Your task to perform on an android device: empty trash in the gmail app Image 0: 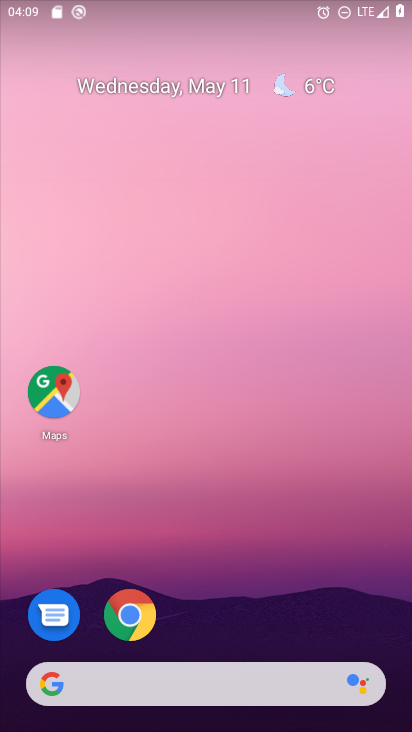
Step 0: drag from (295, 557) to (255, 10)
Your task to perform on an android device: empty trash in the gmail app Image 1: 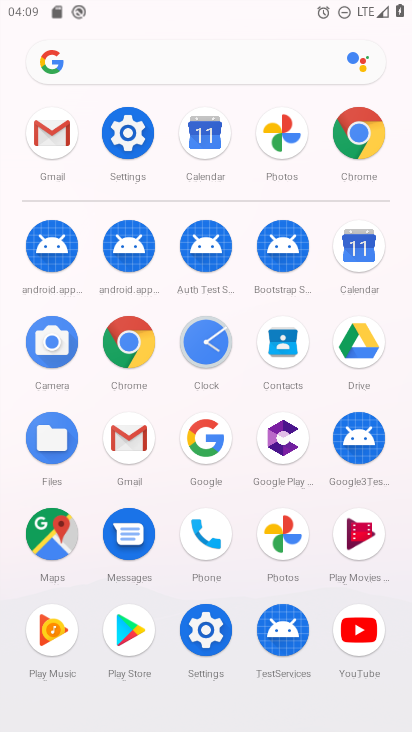
Step 1: click (53, 139)
Your task to perform on an android device: empty trash in the gmail app Image 2: 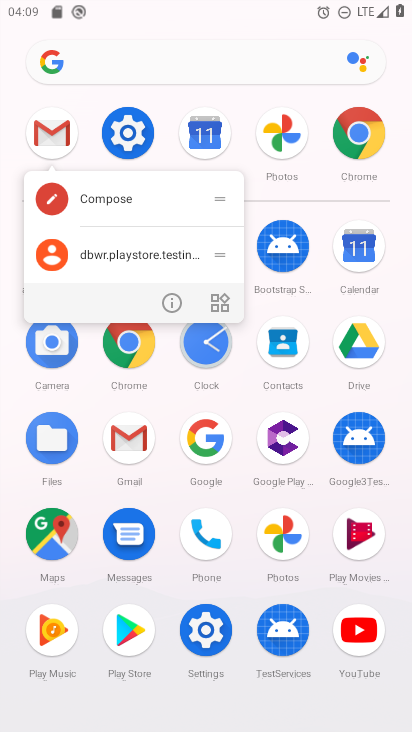
Step 2: click (60, 143)
Your task to perform on an android device: empty trash in the gmail app Image 3: 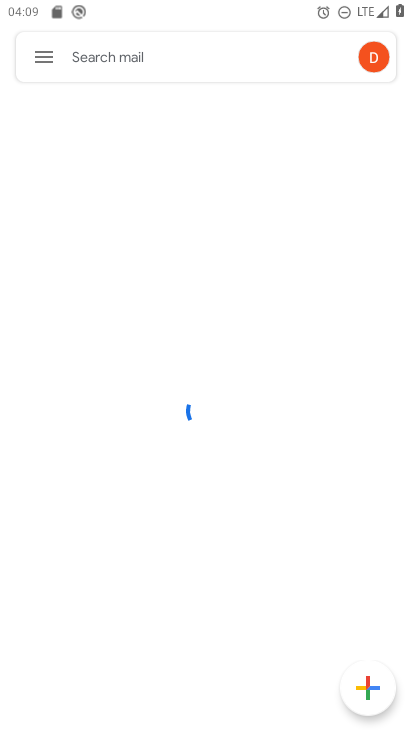
Step 3: click (43, 61)
Your task to perform on an android device: empty trash in the gmail app Image 4: 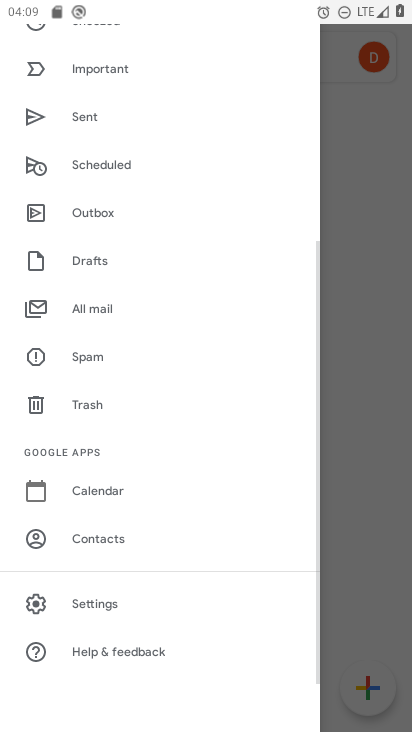
Step 4: click (90, 410)
Your task to perform on an android device: empty trash in the gmail app Image 5: 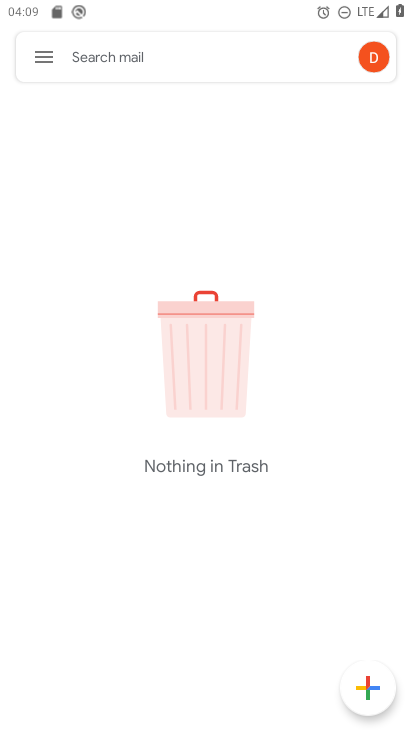
Step 5: task complete